Your task to perform on an android device: Go to battery settings Image 0: 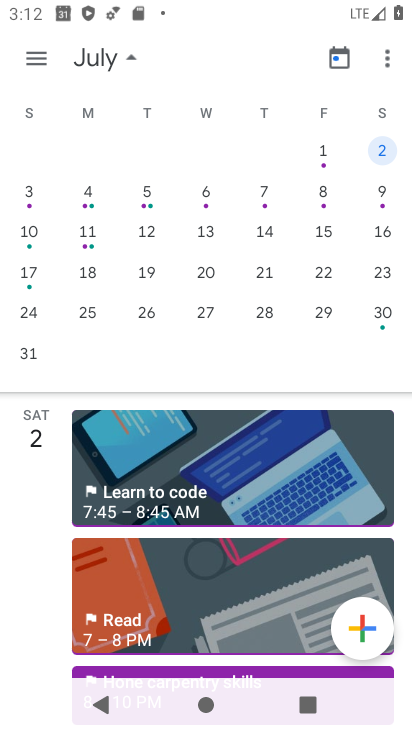
Step 0: press home button
Your task to perform on an android device: Go to battery settings Image 1: 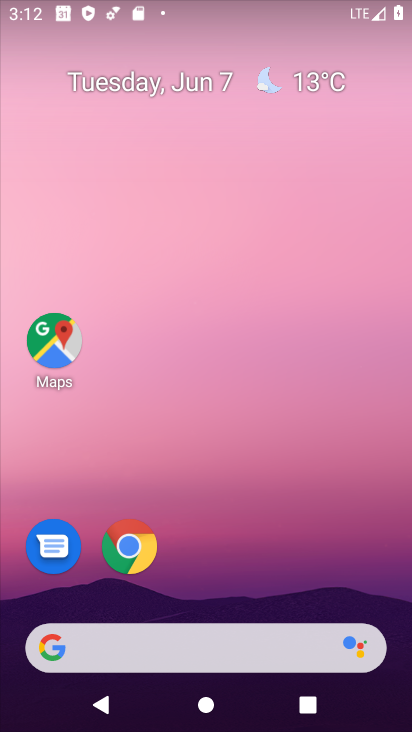
Step 1: drag from (247, 590) to (323, 72)
Your task to perform on an android device: Go to battery settings Image 2: 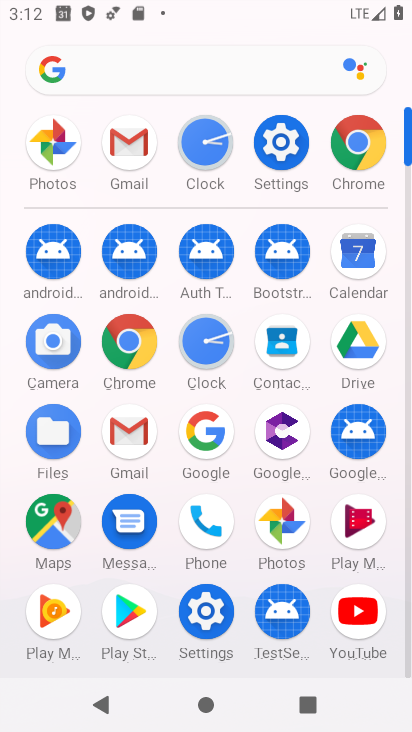
Step 2: click (205, 613)
Your task to perform on an android device: Go to battery settings Image 3: 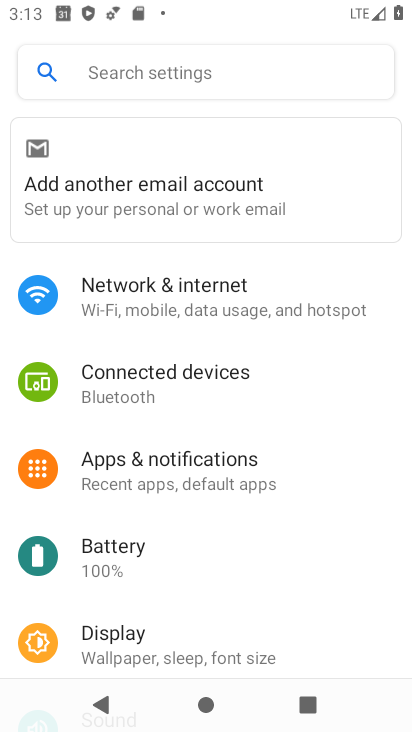
Step 3: click (131, 562)
Your task to perform on an android device: Go to battery settings Image 4: 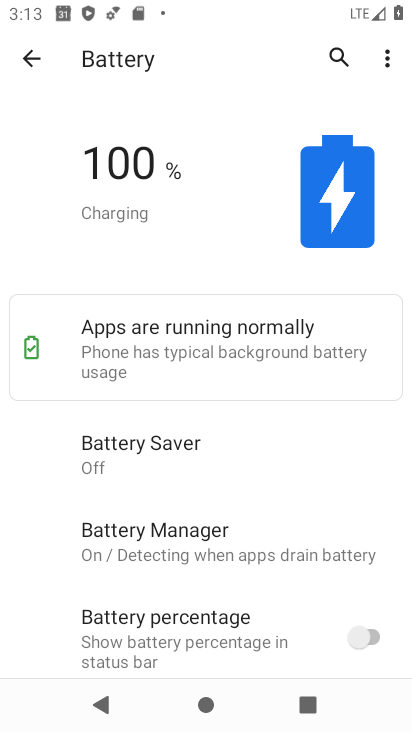
Step 4: task complete